Your task to perform on an android device: Open Yahoo.com Image 0: 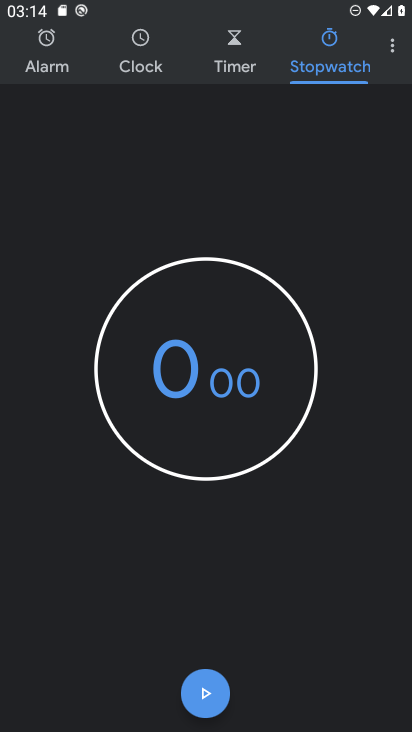
Step 0: press home button
Your task to perform on an android device: Open Yahoo.com Image 1: 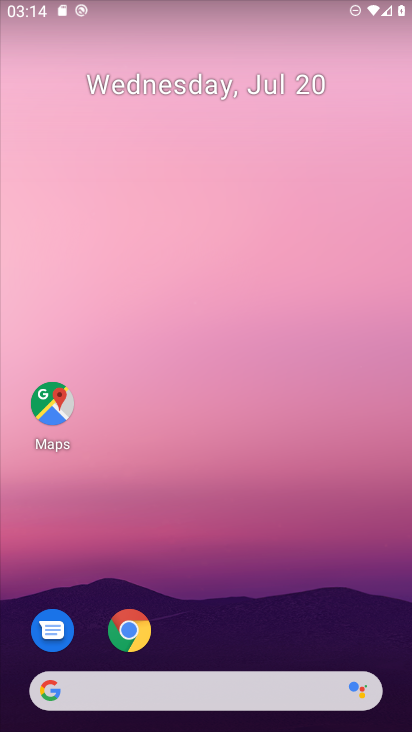
Step 1: drag from (323, 652) to (360, 212)
Your task to perform on an android device: Open Yahoo.com Image 2: 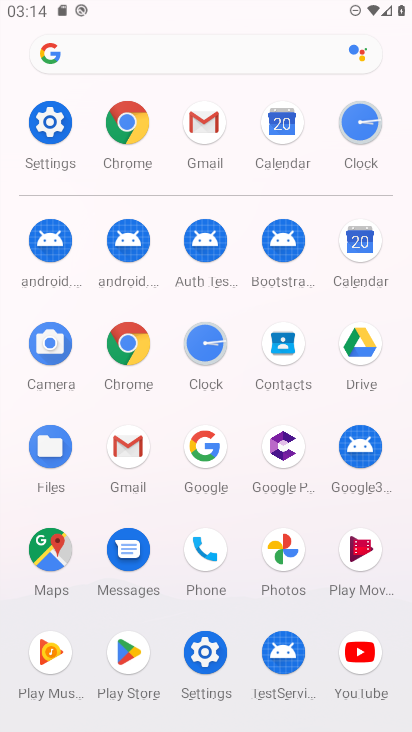
Step 2: click (140, 336)
Your task to perform on an android device: Open Yahoo.com Image 3: 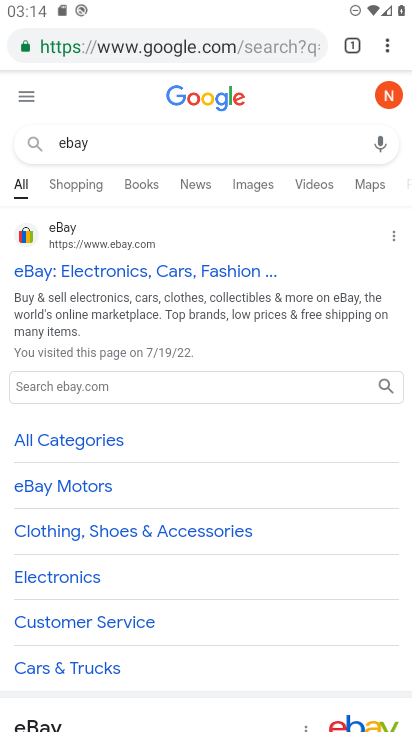
Step 3: click (214, 49)
Your task to perform on an android device: Open Yahoo.com Image 4: 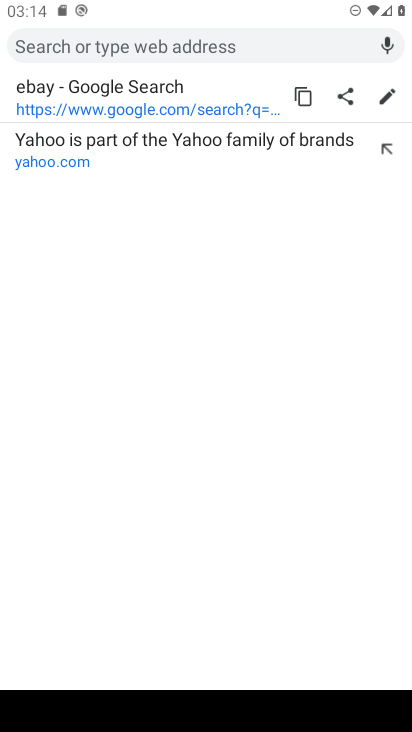
Step 4: type "yahoo.com"
Your task to perform on an android device: Open Yahoo.com Image 5: 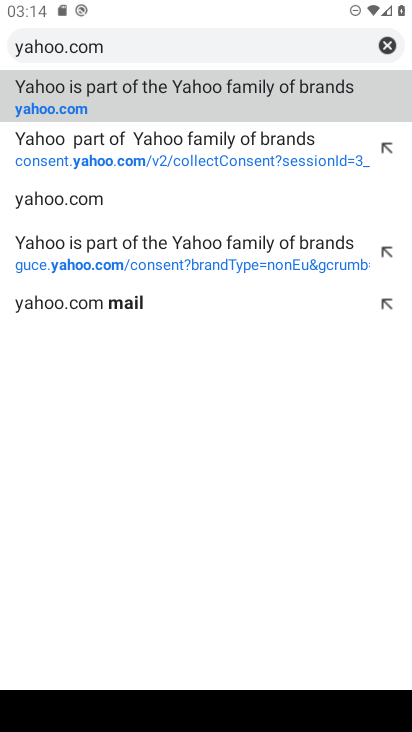
Step 5: click (329, 101)
Your task to perform on an android device: Open Yahoo.com Image 6: 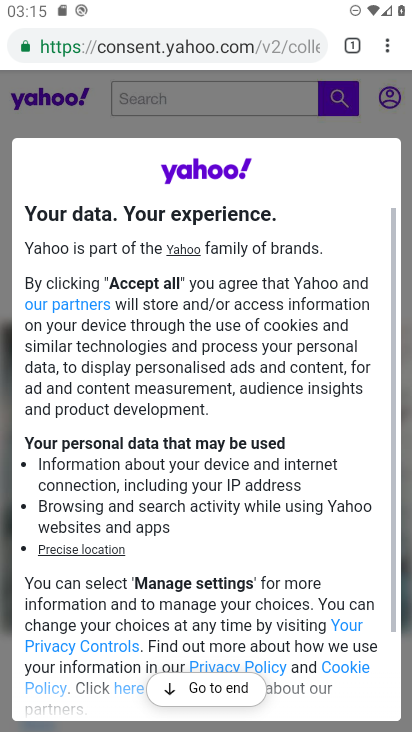
Step 6: task complete